Your task to perform on an android device: remove spam from my inbox in the gmail app Image 0: 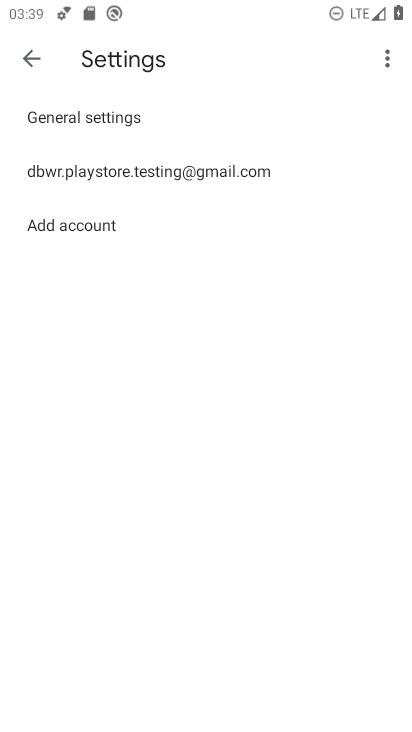
Step 0: click (27, 51)
Your task to perform on an android device: remove spam from my inbox in the gmail app Image 1: 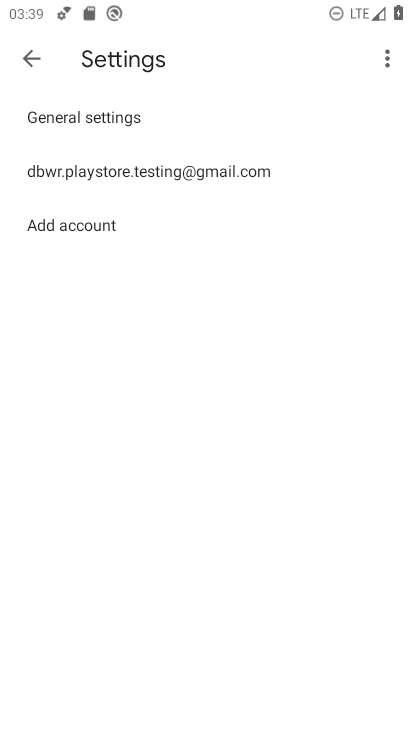
Step 1: click (31, 57)
Your task to perform on an android device: remove spam from my inbox in the gmail app Image 2: 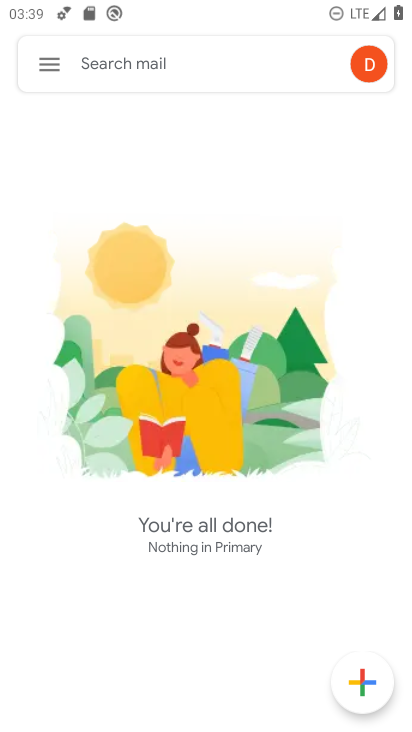
Step 2: task complete